Your task to perform on an android device: remove spam from my inbox in the gmail app Image 0: 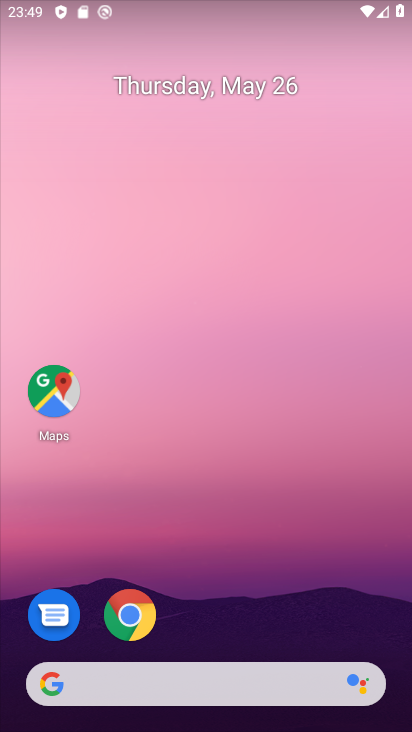
Step 0: drag from (344, 620) to (362, 186)
Your task to perform on an android device: remove spam from my inbox in the gmail app Image 1: 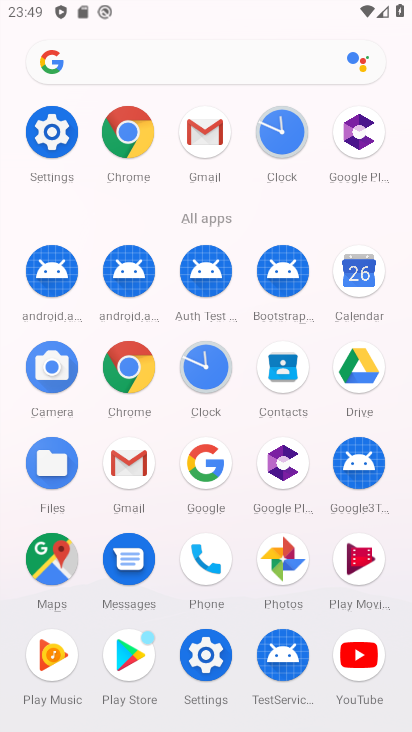
Step 1: click (140, 469)
Your task to perform on an android device: remove spam from my inbox in the gmail app Image 2: 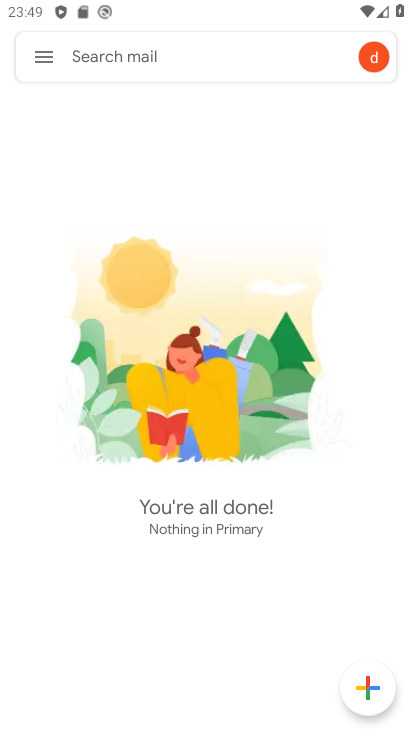
Step 2: click (47, 55)
Your task to perform on an android device: remove spam from my inbox in the gmail app Image 3: 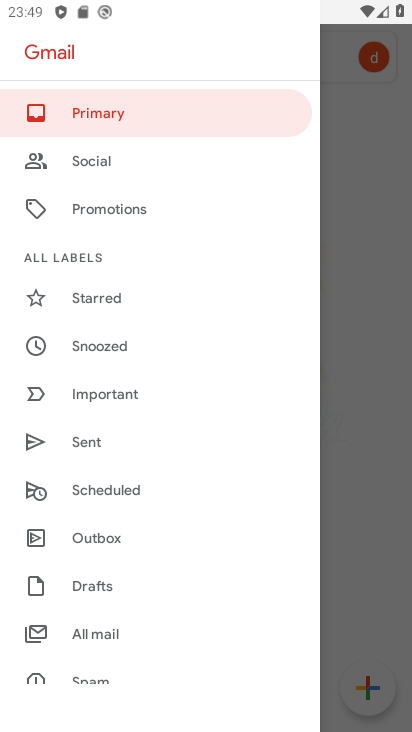
Step 3: drag from (233, 621) to (235, 516)
Your task to perform on an android device: remove spam from my inbox in the gmail app Image 4: 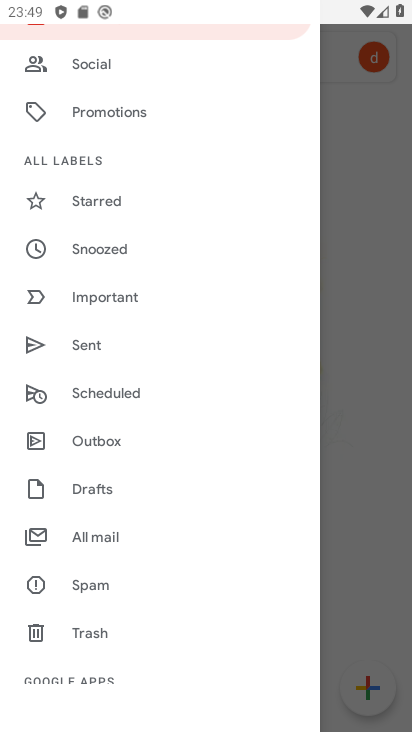
Step 4: drag from (217, 614) to (214, 499)
Your task to perform on an android device: remove spam from my inbox in the gmail app Image 5: 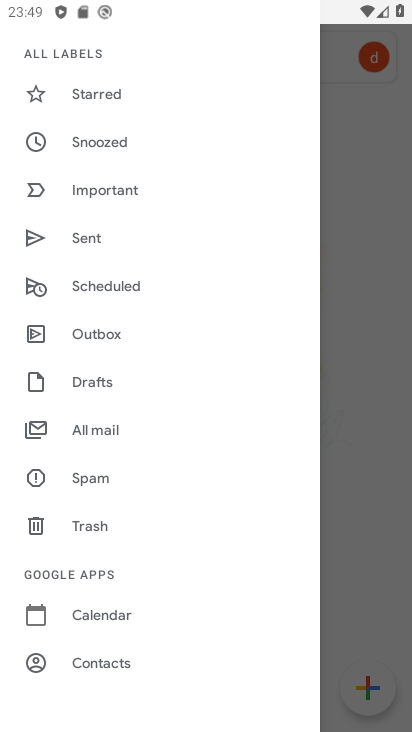
Step 5: drag from (214, 595) to (218, 508)
Your task to perform on an android device: remove spam from my inbox in the gmail app Image 6: 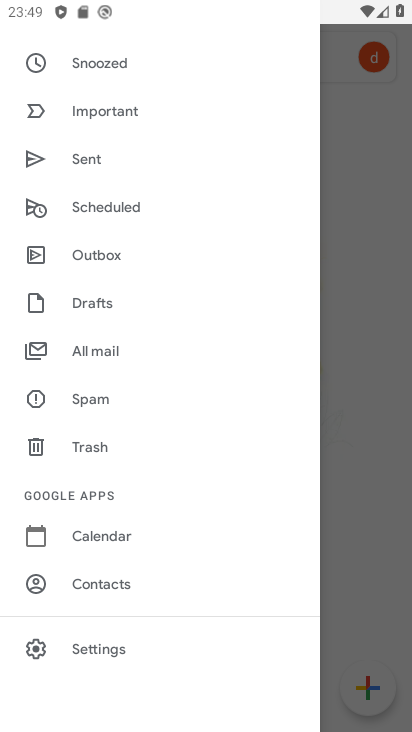
Step 6: click (105, 402)
Your task to perform on an android device: remove spam from my inbox in the gmail app Image 7: 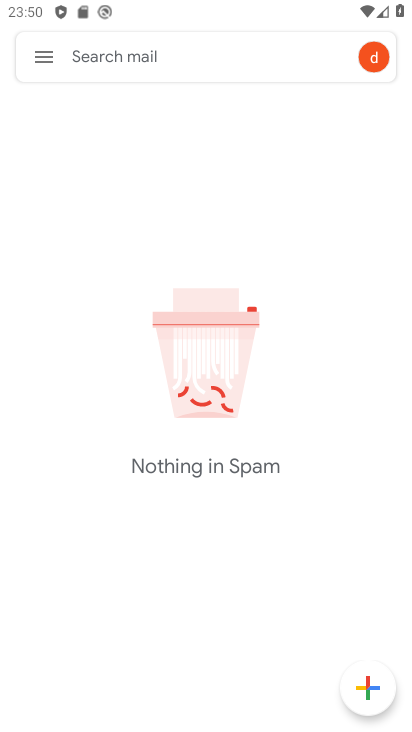
Step 7: task complete